Your task to perform on an android device: turn on javascript in the chrome app Image 0: 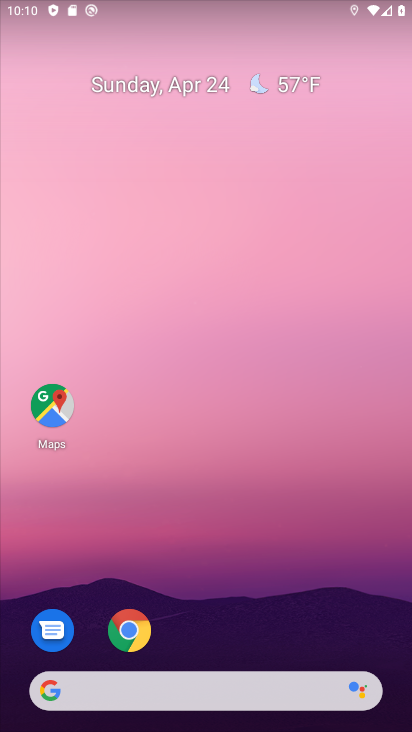
Step 0: click (127, 632)
Your task to perform on an android device: turn on javascript in the chrome app Image 1: 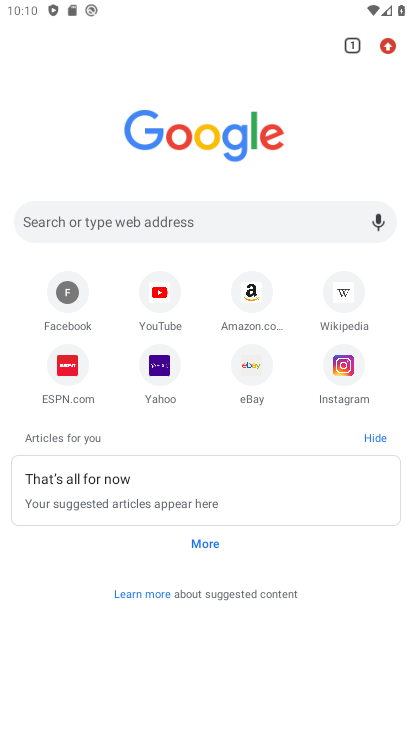
Step 1: click (387, 48)
Your task to perform on an android device: turn on javascript in the chrome app Image 2: 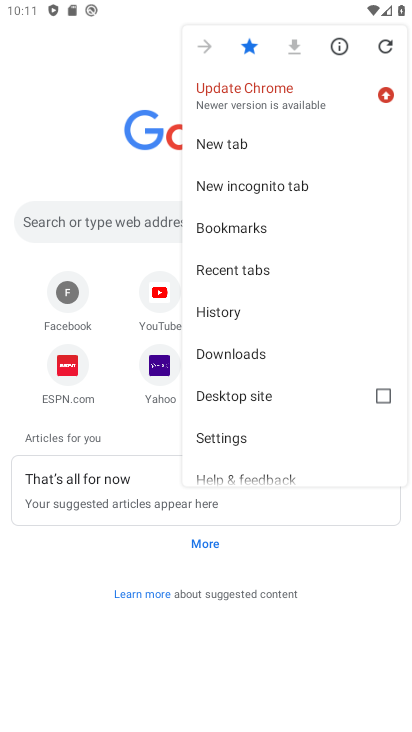
Step 2: click (228, 440)
Your task to perform on an android device: turn on javascript in the chrome app Image 3: 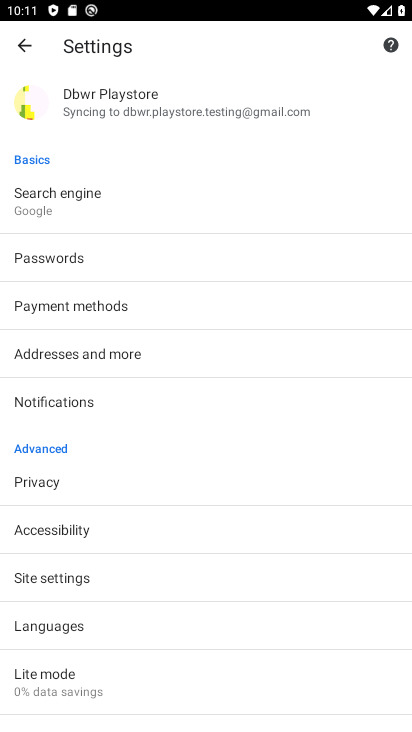
Step 3: click (50, 579)
Your task to perform on an android device: turn on javascript in the chrome app Image 4: 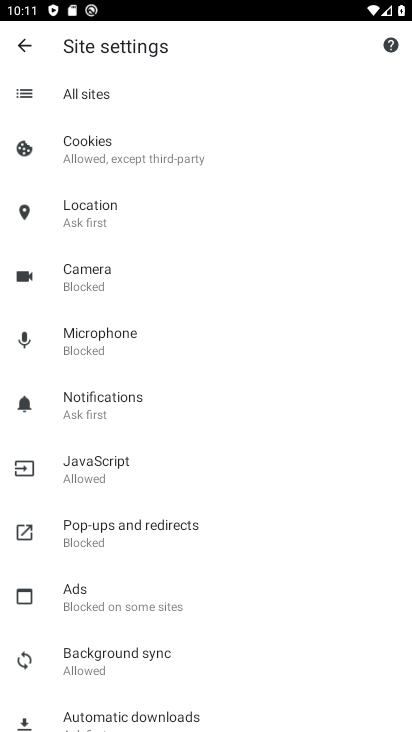
Step 4: click (92, 468)
Your task to perform on an android device: turn on javascript in the chrome app Image 5: 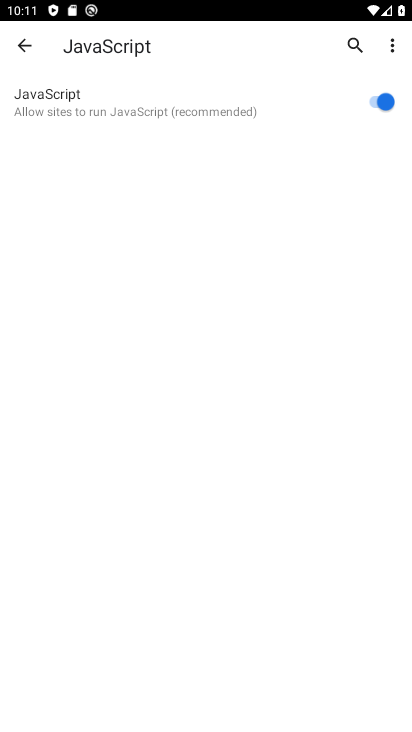
Step 5: task complete